Your task to perform on an android device: make emails show in primary in the gmail app Image 0: 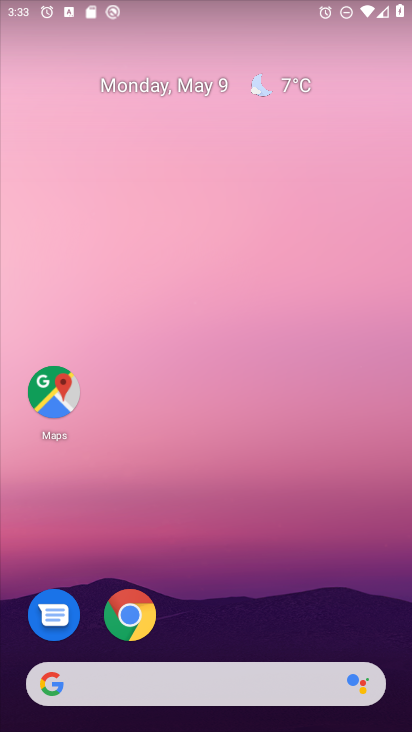
Step 0: press home button
Your task to perform on an android device: make emails show in primary in the gmail app Image 1: 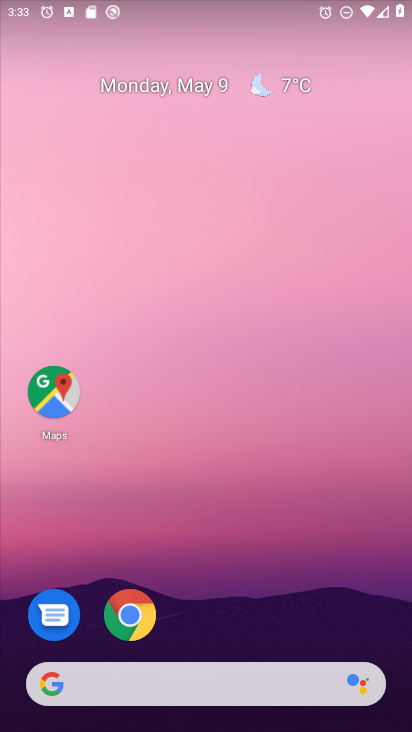
Step 1: drag from (361, 624) to (296, 40)
Your task to perform on an android device: make emails show in primary in the gmail app Image 2: 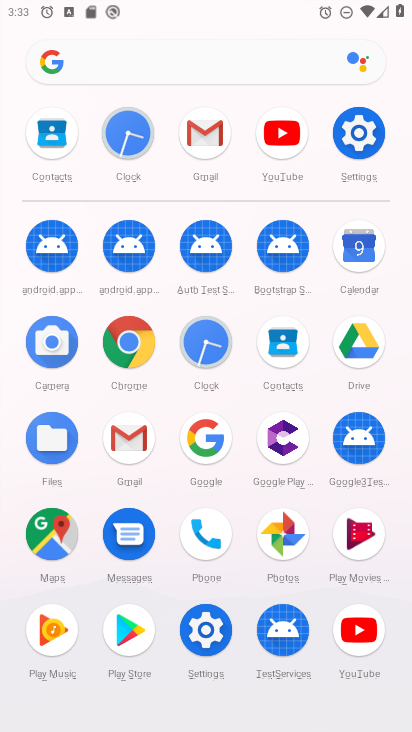
Step 2: click (128, 438)
Your task to perform on an android device: make emails show in primary in the gmail app Image 3: 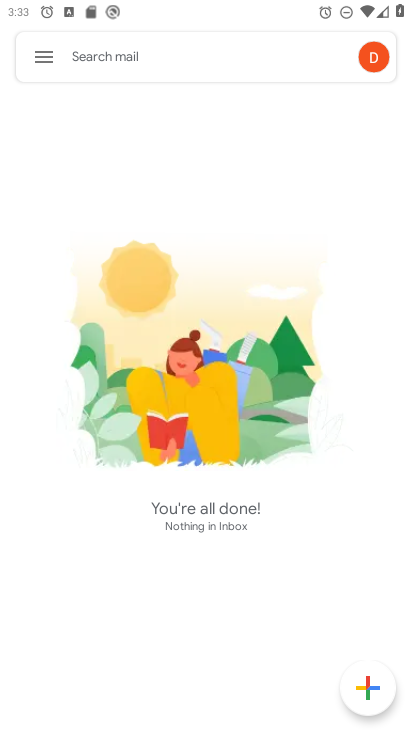
Step 3: click (45, 49)
Your task to perform on an android device: make emails show in primary in the gmail app Image 4: 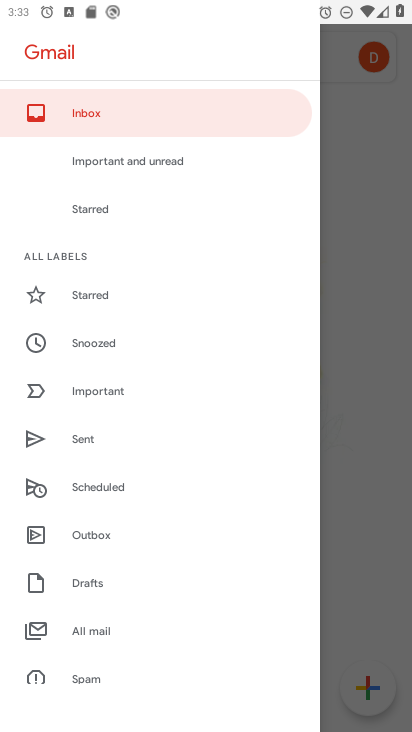
Step 4: drag from (121, 595) to (158, 185)
Your task to perform on an android device: make emails show in primary in the gmail app Image 5: 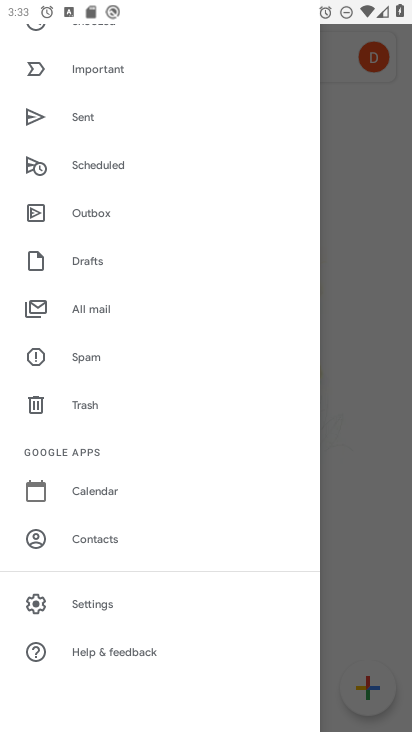
Step 5: click (83, 602)
Your task to perform on an android device: make emails show in primary in the gmail app Image 6: 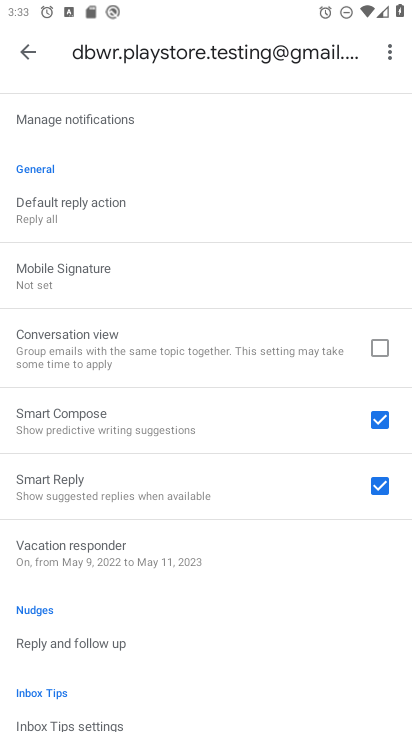
Step 6: drag from (224, 221) to (240, 624)
Your task to perform on an android device: make emails show in primary in the gmail app Image 7: 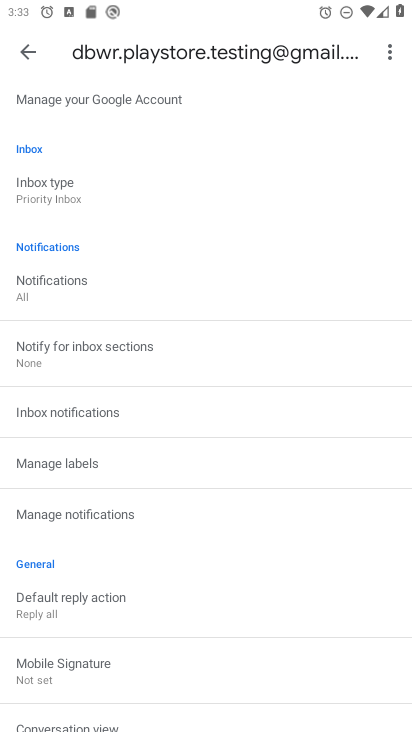
Step 7: click (41, 174)
Your task to perform on an android device: make emails show in primary in the gmail app Image 8: 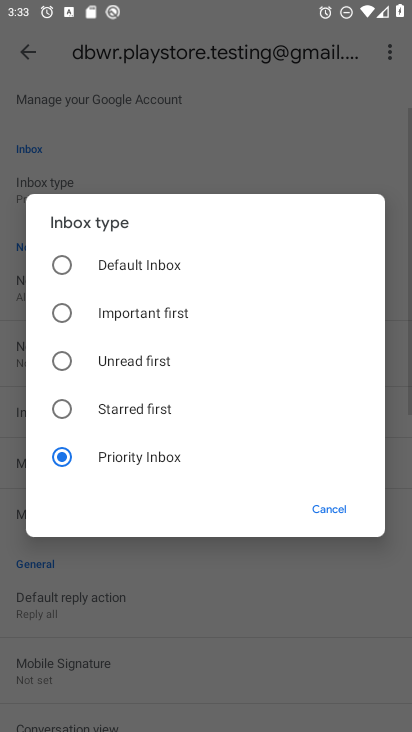
Step 8: click (75, 254)
Your task to perform on an android device: make emails show in primary in the gmail app Image 9: 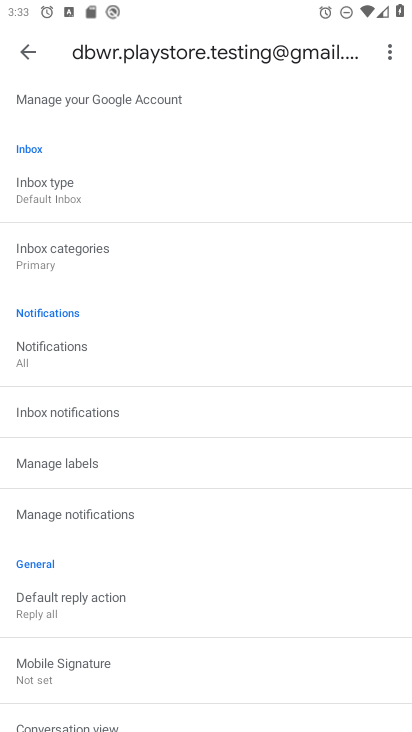
Step 9: click (48, 265)
Your task to perform on an android device: make emails show in primary in the gmail app Image 10: 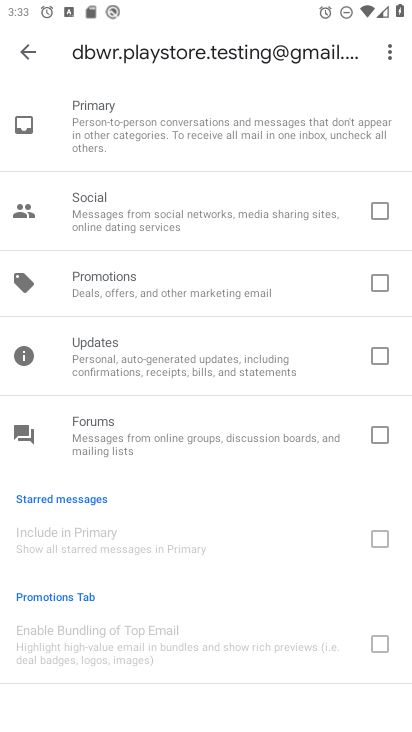
Step 10: task complete